Your task to perform on an android device: Open Maps and search for coffee Image 0: 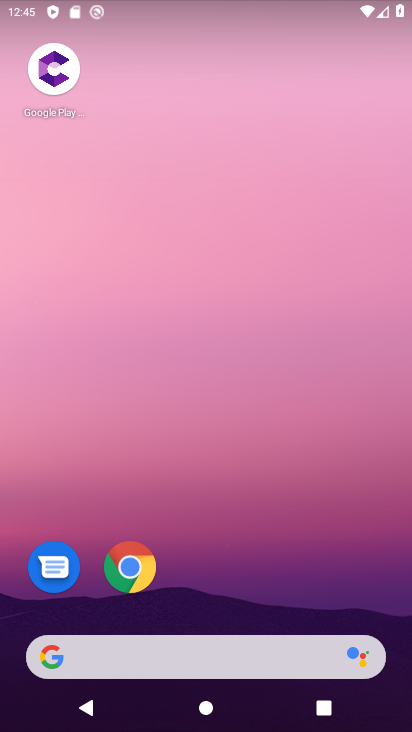
Step 0: drag from (217, 628) to (269, 118)
Your task to perform on an android device: Open Maps and search for coffee Image 1: 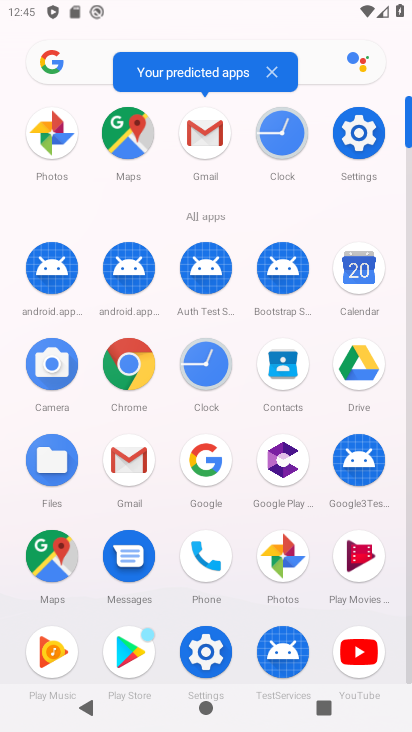
Step 1: click (122, 129)
Your task to perform on an android device: Open Maps and search for coffee Image 2: 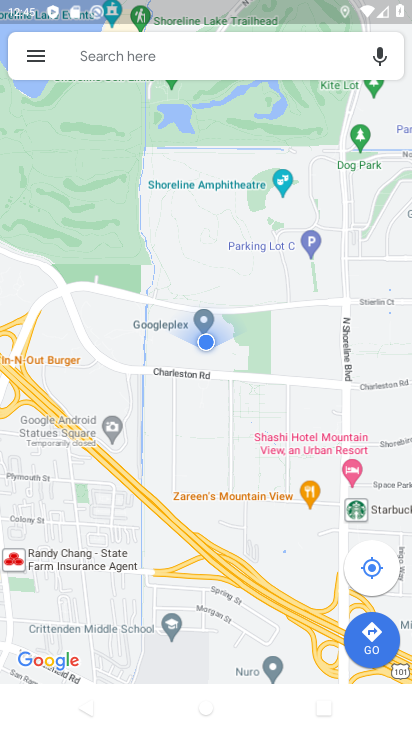
Step 2: click (222, 57)
Your task to perform on an android device: Open Maps and search for coffee Image 3: 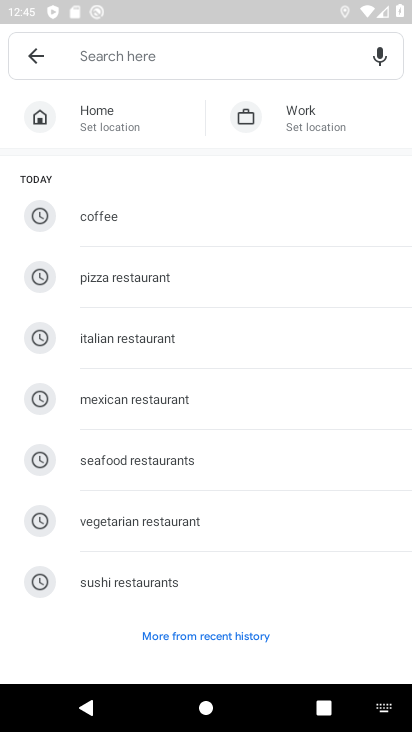
Step 3: click (136, 221)
Your task to perform on an android device: Open Maps and search for coffee Image 4: 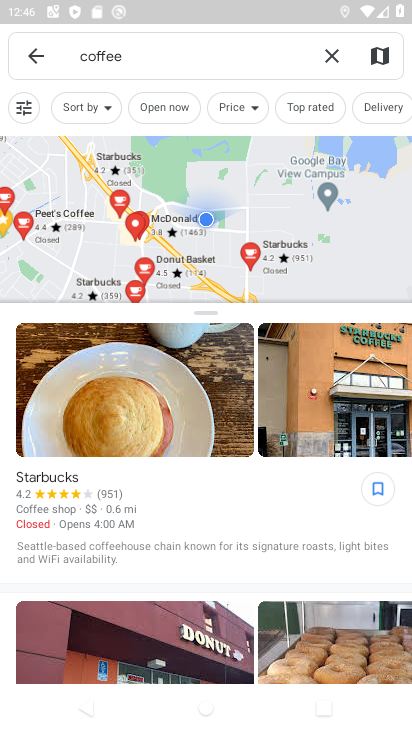
Step 4: task complete